Your task to perform on an android device: Play the last video I watched on Youtube Image 0: 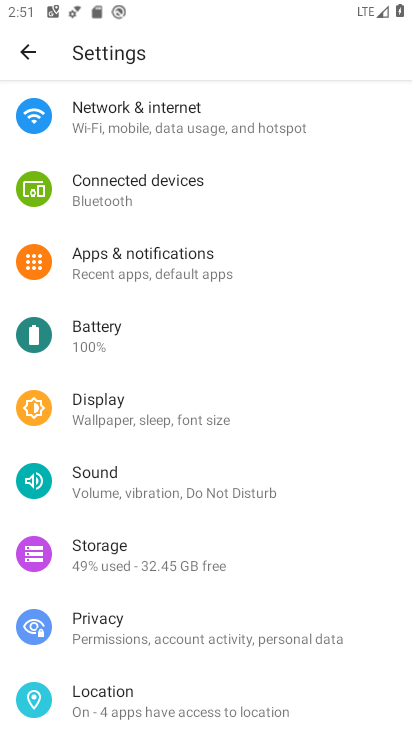
Step 0: press home button
Your task to perform on an android device: Play the last video I watched on Youtube Image 1: 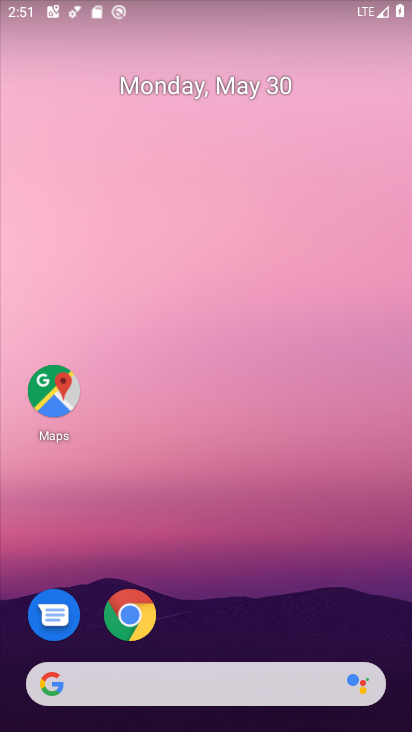
Step 1: drag from (214, 621) to (325, 55)
Your task to perform on an android device: Play the last video I watched on Youtube Image 2: 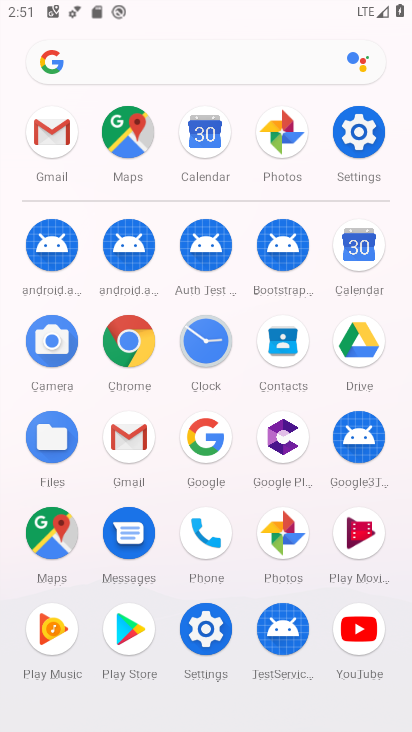
Step 2: click (349, 633)
Your task to perform on an android device: Play the last video I watched on Youtube Image 3: 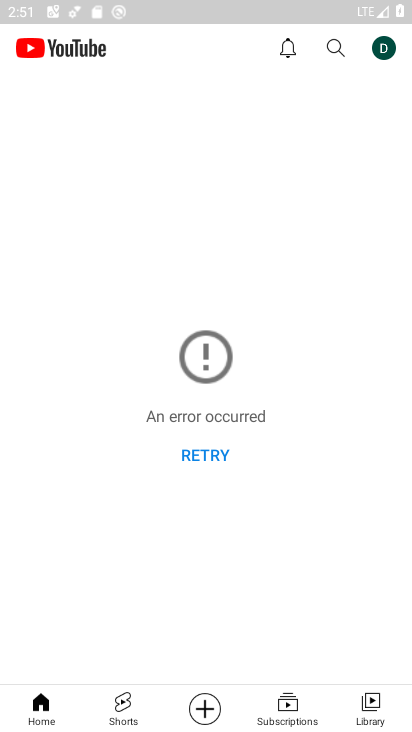
Step 3: click (369, 699)
Your task to perform on an android device: Play the last video I watched on Youtube Image 4: 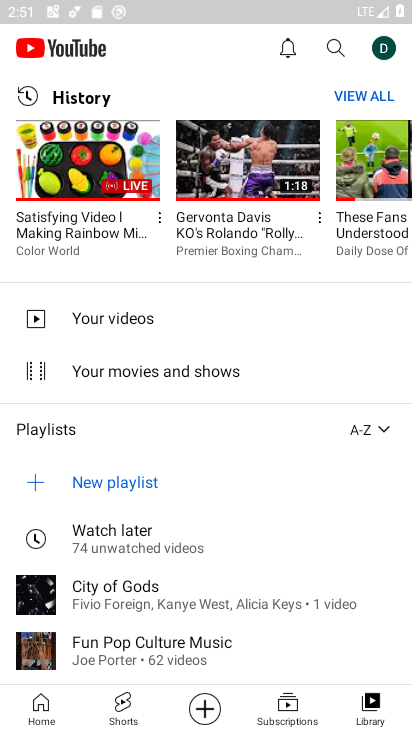
Step 4: click (100, 179)
Your task to perform on an android device: Play the last video I watched on Youtube Image 5: 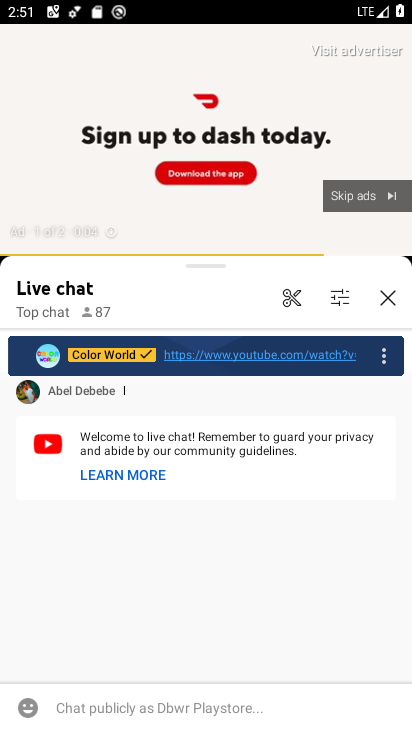
Step 5: task complete